Your task to perform on an android device: Open display settings Image 0: 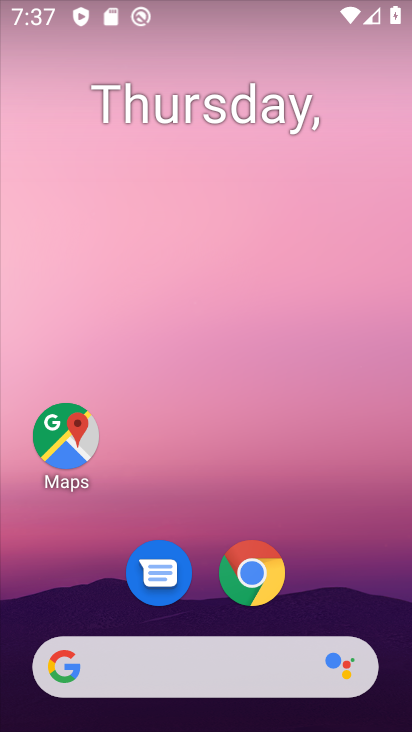
Step 0: drag from (380, 574) to (395, 133)
Your task to perform on an android device: Open display settings Image 1: 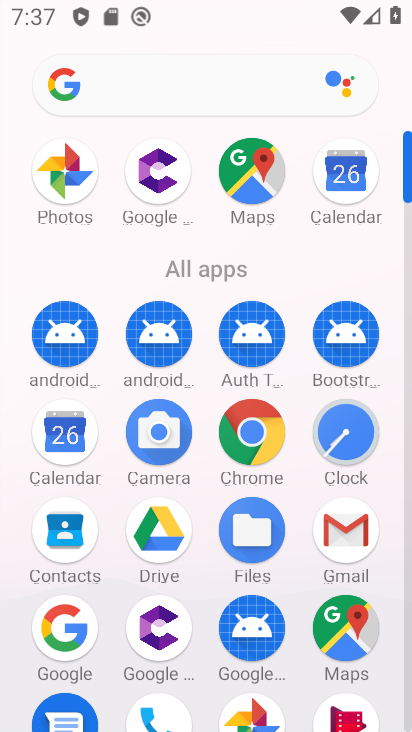
Step 1: drag from (305, 580) to (381, 245)
Your task to perform on an android device: Open display settings Image 2: 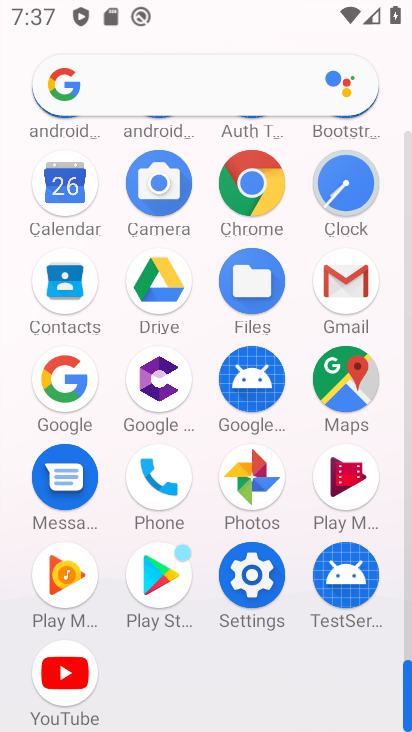
Step 2: click (269, 607)
Your task to perform on an android device: Open display settings Image 3: 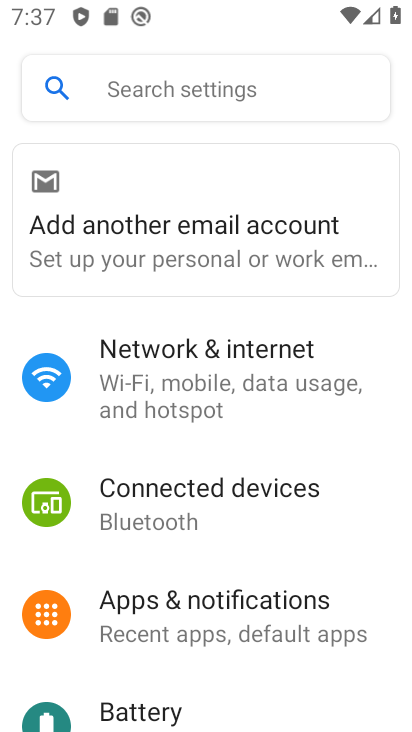
Step 3: drag from (261, 596) to (357, 222)
Your task to perform on an android device: Open display settings Image 4: 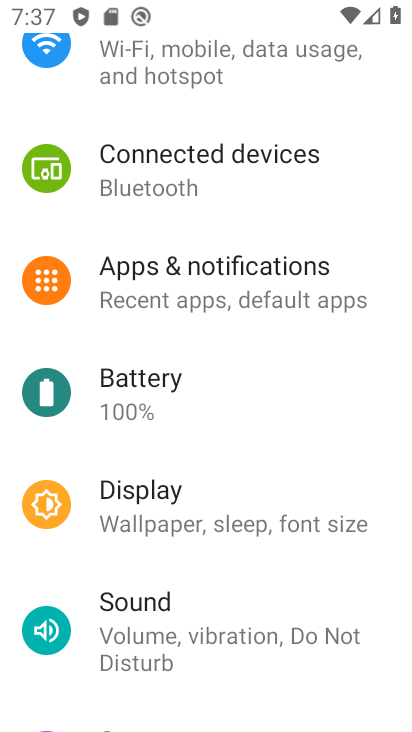
Step 4: click (237, 526)
Your task to perform on an android device: Open display settings Image 5: 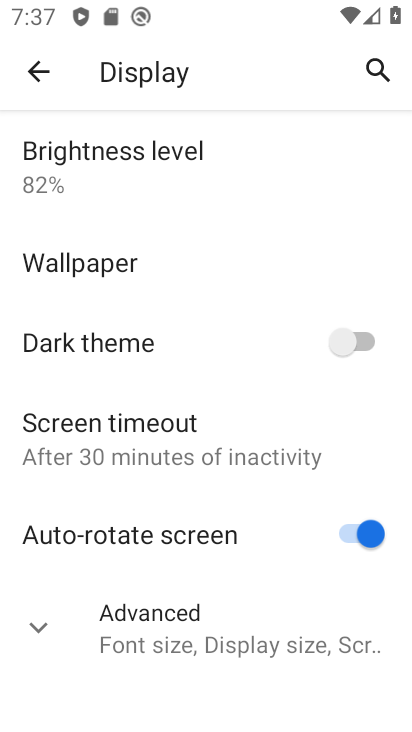
Step 5: task complete